Your task to perform on an android device: Open Wikipedia Image 0: 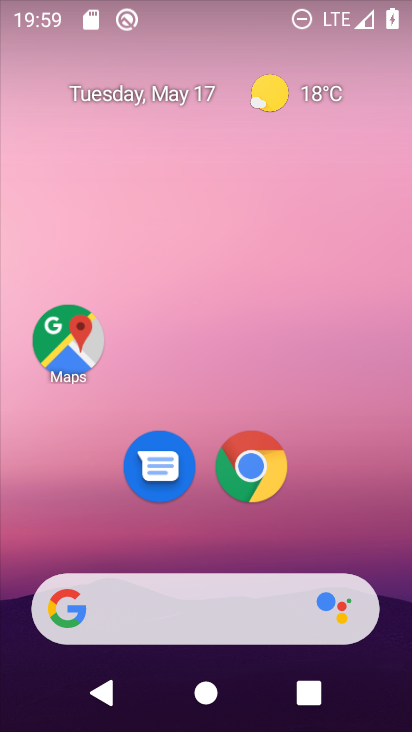
Step 0: click (255, 483)
Your task to perform on an android device: Open Wikipedia Image 1: 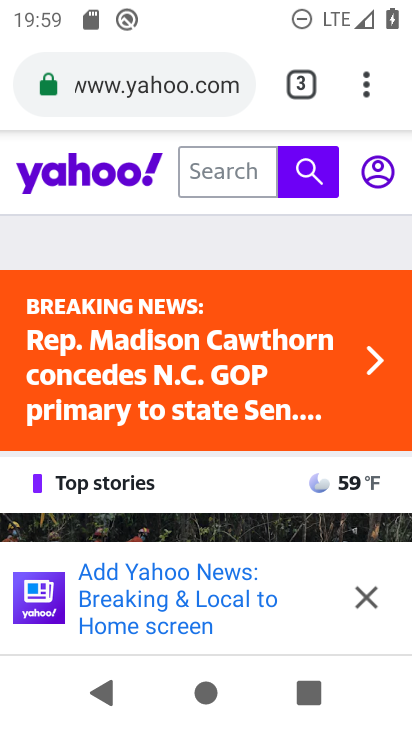
Step 1: drag from (367, 92) to (276, 175)
Your task to perform on an android device: Open Wikipedia Image 2: 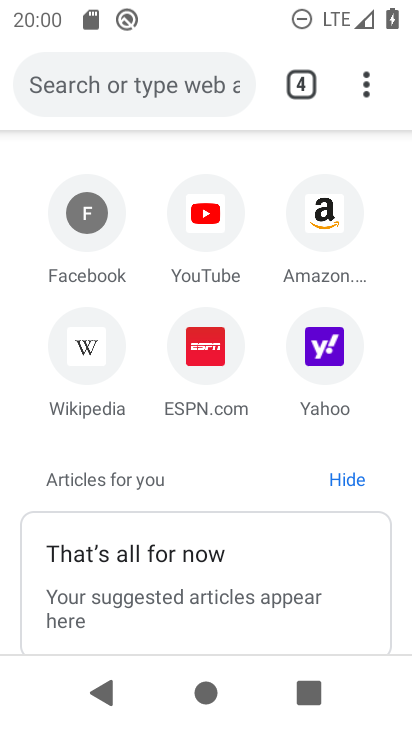
Step 2: click (97, 362)
Your task to perform on an android device: Open Wikipedia Image 3: 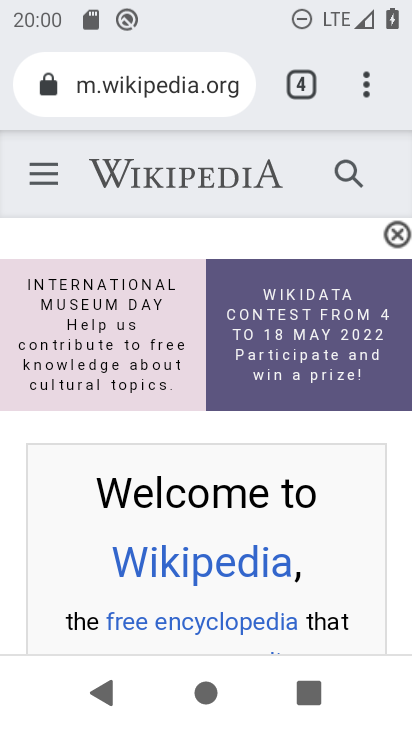
Step 3: task complete